Your task to perform on an android device: Show me the alarms in the clock app Image 0: 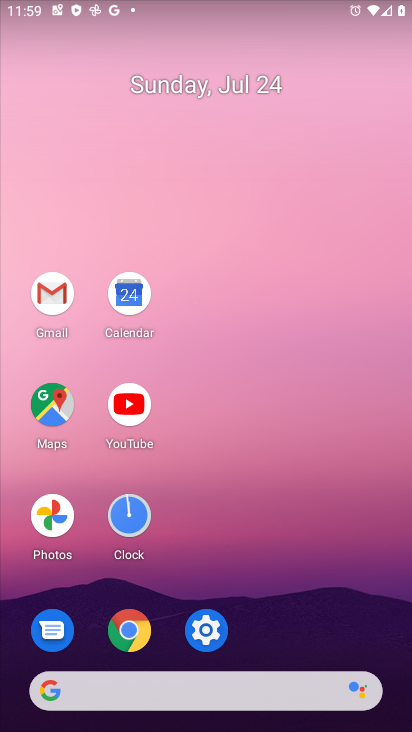
Step 0: click (127, 514)
Your task to perform on an android device: Show me the alarms in the clock app Image 1: 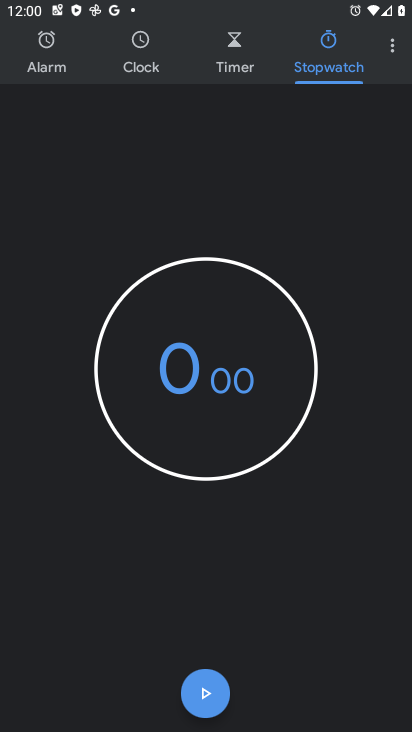
Step 1: click (50, 51)
Your task to perform on an android device: Show me the alarms in the clock app Image 2: 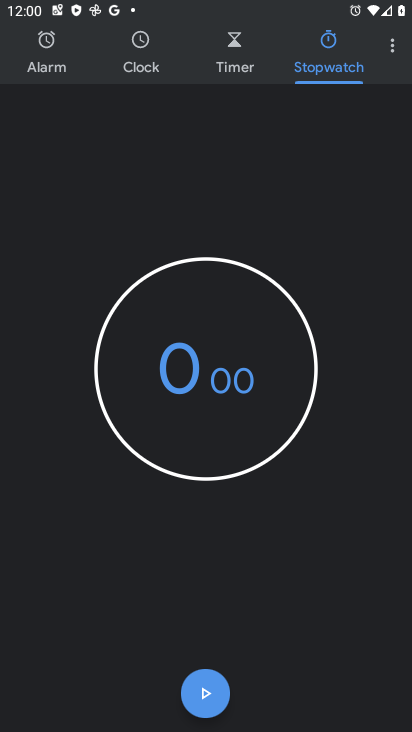
Step 2: click (50, 51)
Your task to perform on an android device: Show me the alarms in the clock app Image 3: 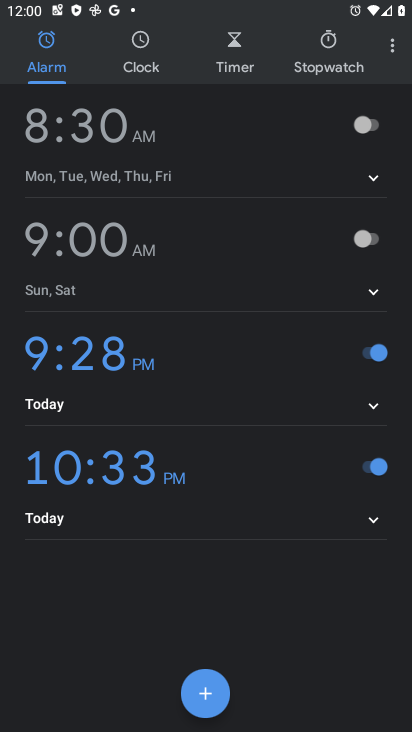
Step 3: task complete